Your task to perform on an android device: set the timer Image 0: 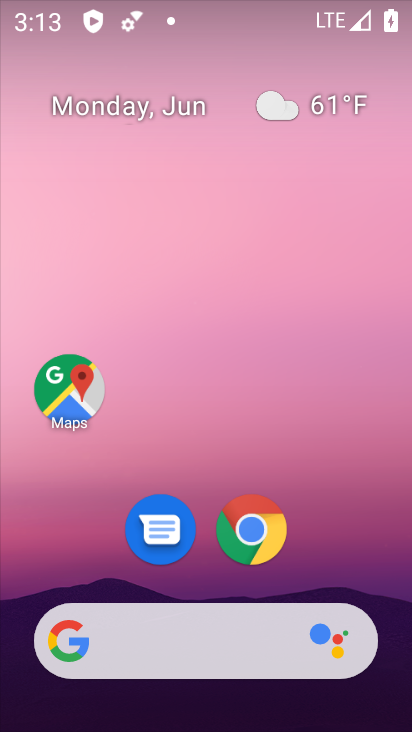
Step 0: drag from (214, 649) to (145, 304)
Your task to perform on an android device: set the timer Image 1: 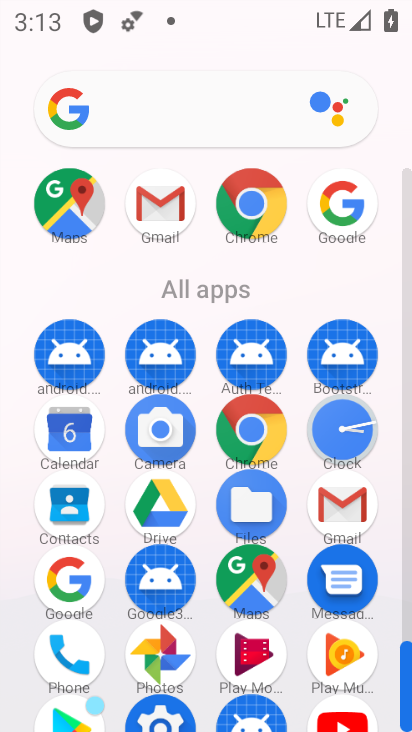
Step 1: click (352, 431)
Your task to perform on an android device: set the timer Image 2: 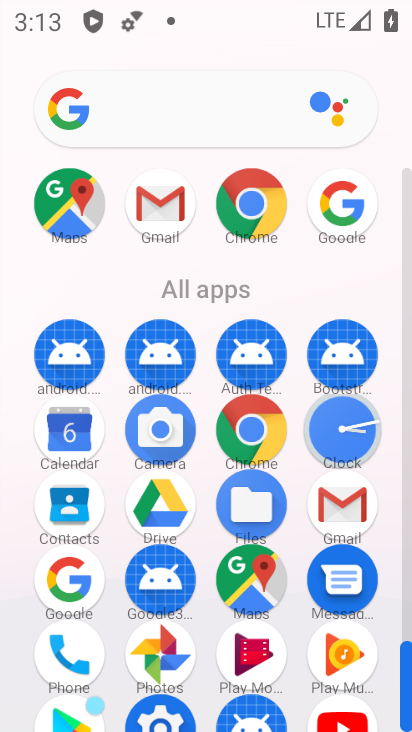
Step 2: click (351, 429)
Your task to perform on an android device: set the timer Image 3: 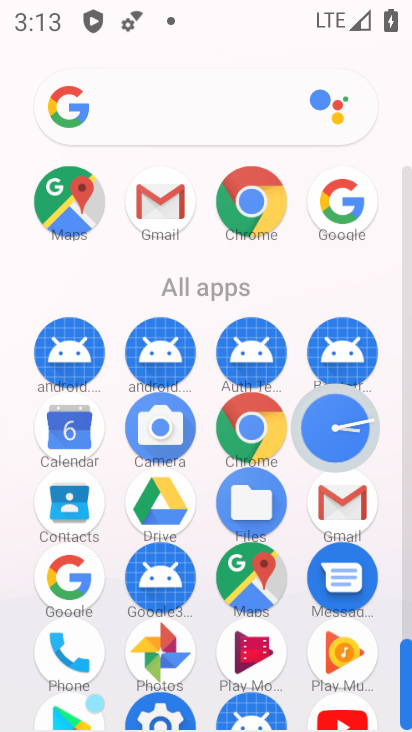
Step 3: click (350, 429)
Your task to perform on an android device: set the timer Image 4: 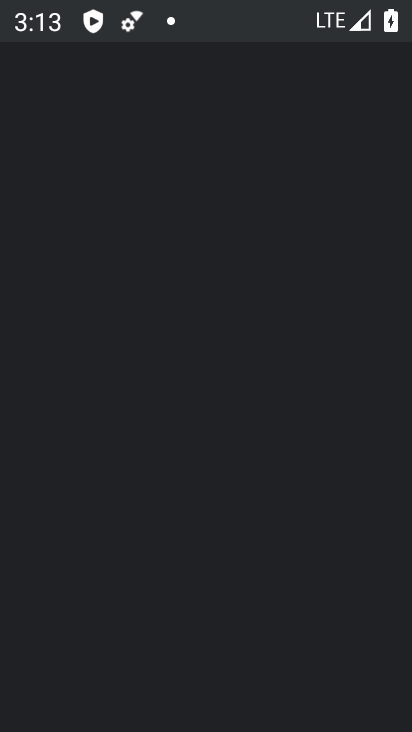
Step 4: click (344, 425)
Your task to perform on an android device: set the timer Image 5: 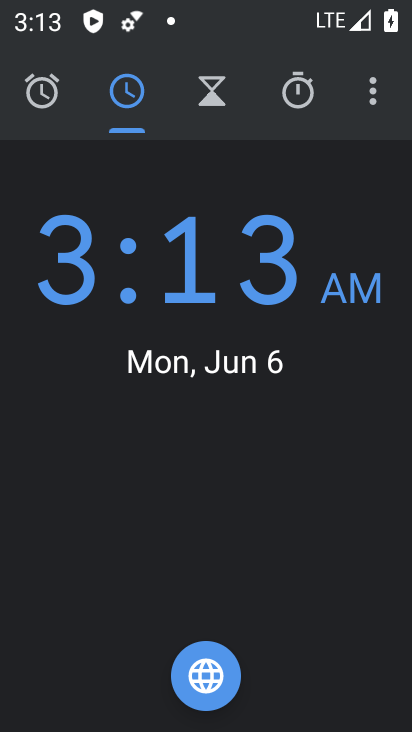
Step 5: click (223, 92)
Your task to perform on an android device: set the timer Image 6: 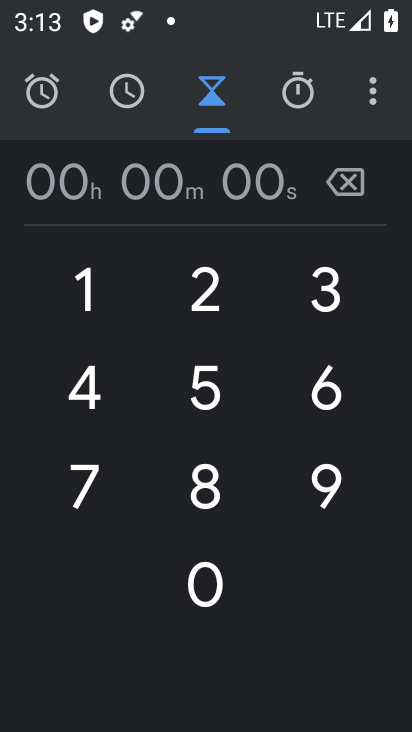
Step 6: click (207, 468)
Your task to perform on an android device: set the timer Image 7: 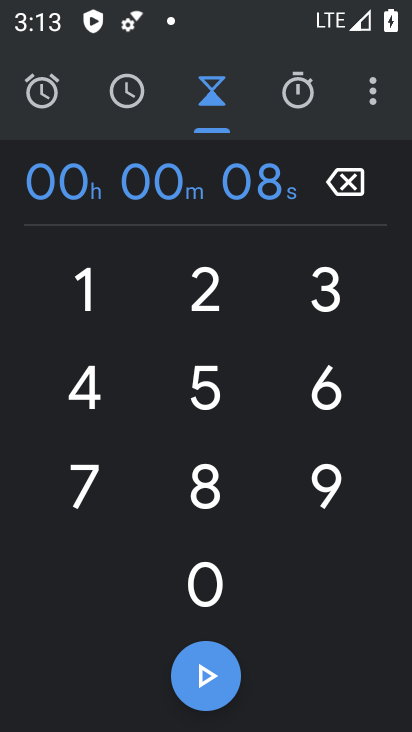
Step 7: click (206, 670)
Your task to perform on an android device: set the timer Image 8: 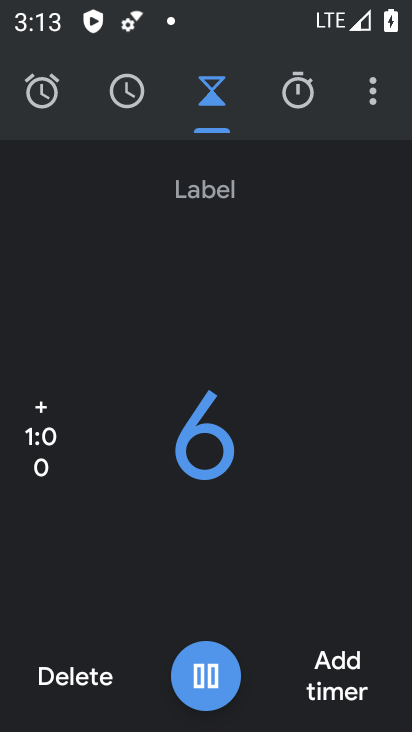
Step 8: click (209, 674)
Your task to perform on an android device: set the timer Image 9: 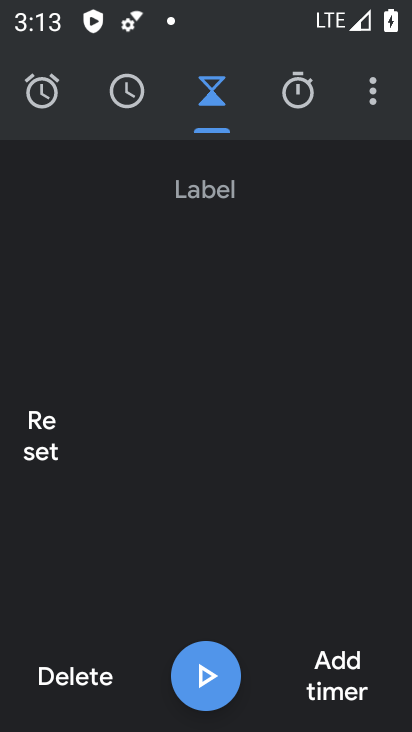
Step 9: click (212, 689)
Your task to perform on an android device: set the timer Image 10: 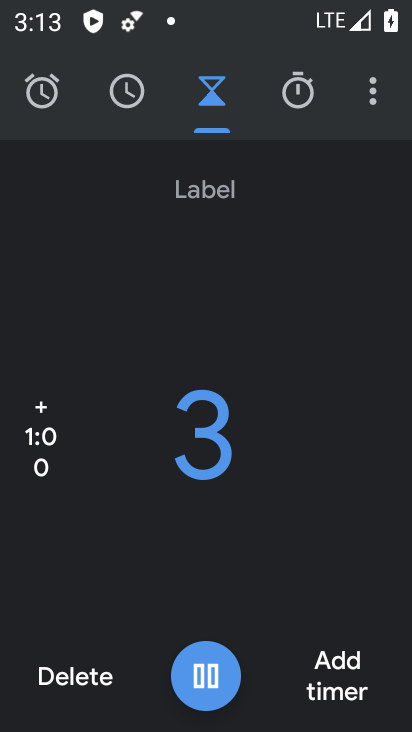
Step 10: click (206, 683)
Your task to perform on an android device: set the timer Image 11: 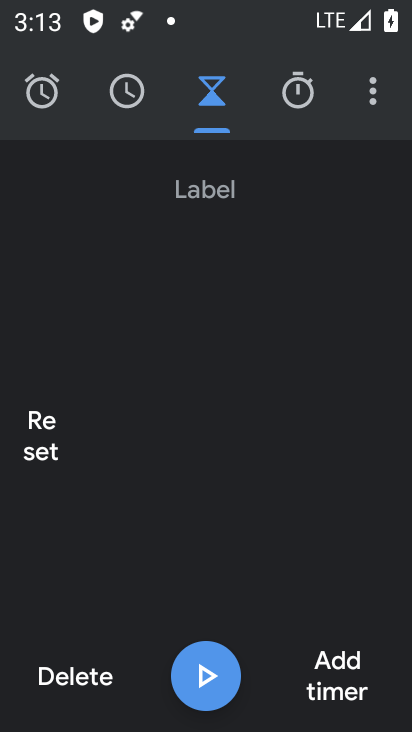
Step 11: task complete